Your task to perform on an android device: show emergency info Image 0: 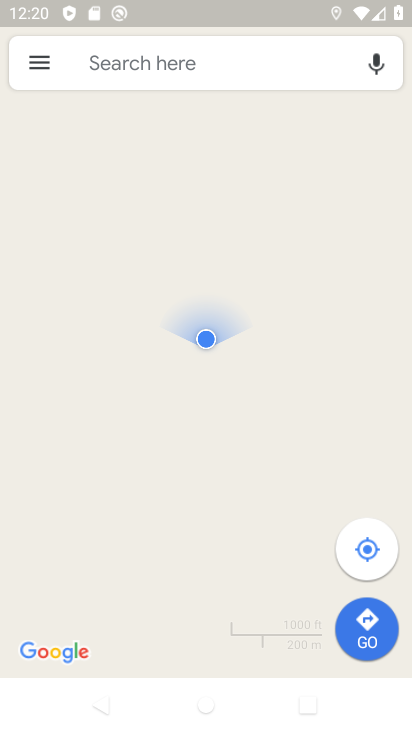
Step 0: press home button
Your task to perform on an android device: show emergency info Image 1: 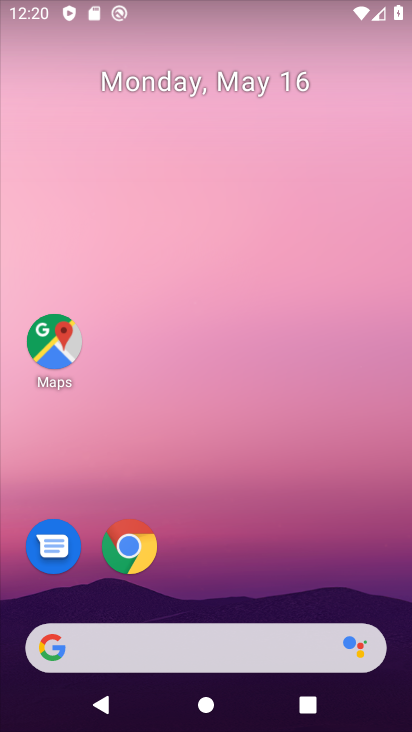
Step 1: drag from (278, 549) to (326, 82)
Your task to perform on an android device: show emergency info Image 2: 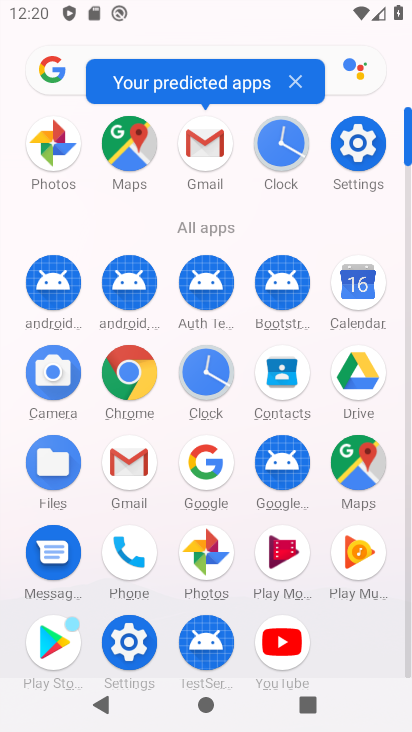
Step 2: click (370, 136)
Your task to perform on an android device: show emergency info Image 3: 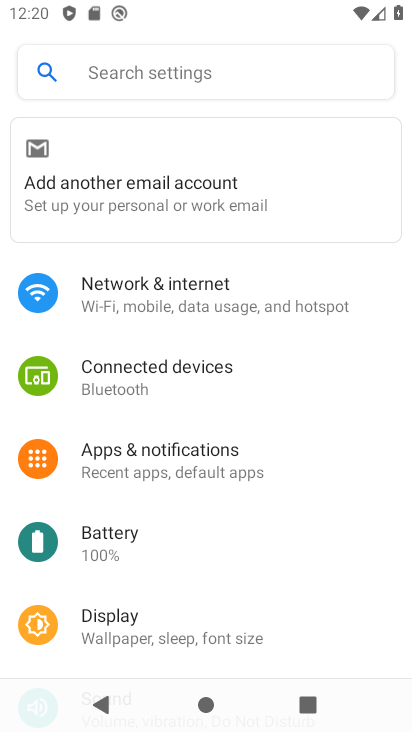
Step 3: drag from (272, 513) to (303, 0)
Your task to perform on an android device: show emergency info Image 4: 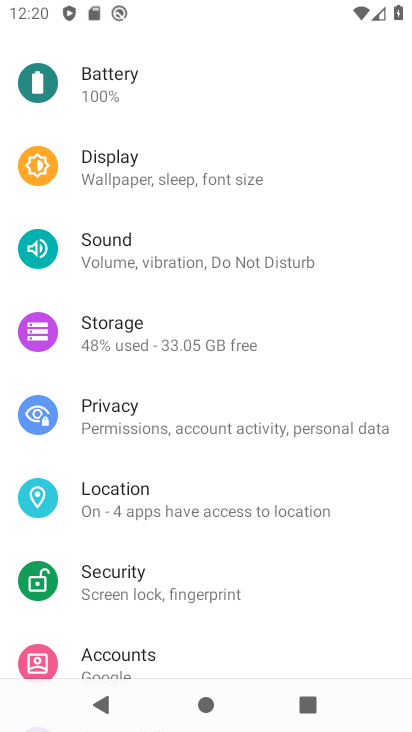
Step 4: drag from (180, 588) to (287, 110)
Your task to perform on an android device: show emergency info Image 5: 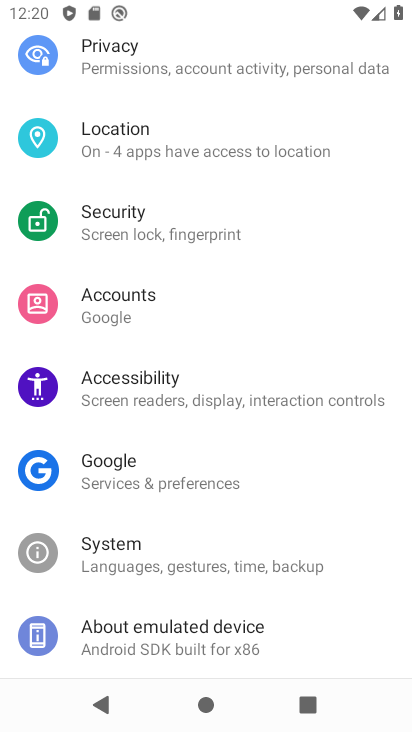
Step 5: drag from (200, 483) to (273, 184)
Your task to perform on an android device: show emergency info Image 6: 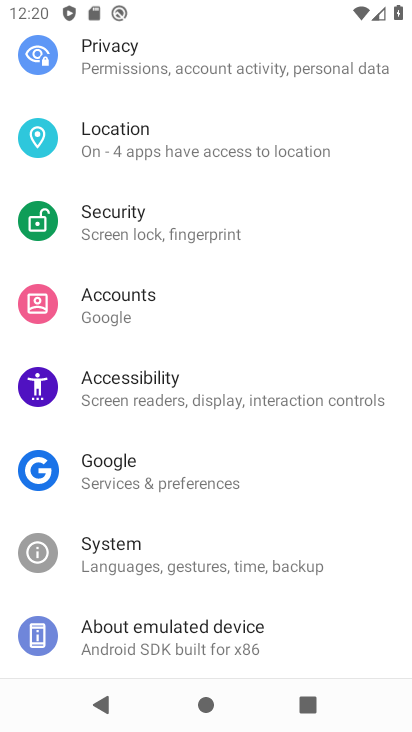
Step 6: click (184, 635)
Your task to perform on an android device: show emergency info Image 7: 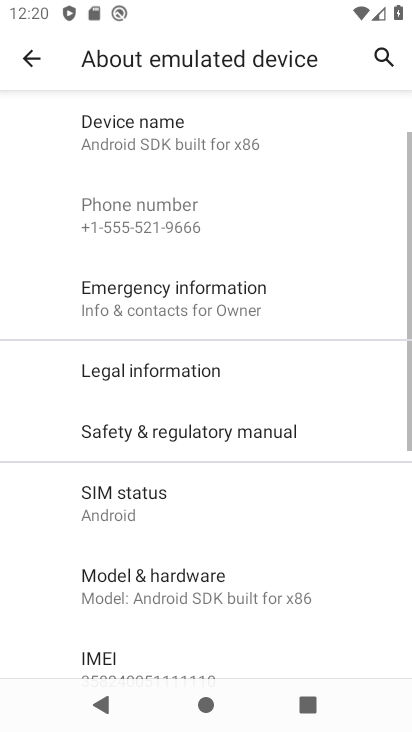
Step 7: drag from (186, 627) to (270, 234)
Your task to perform on an android device: show emergency info Image 8: 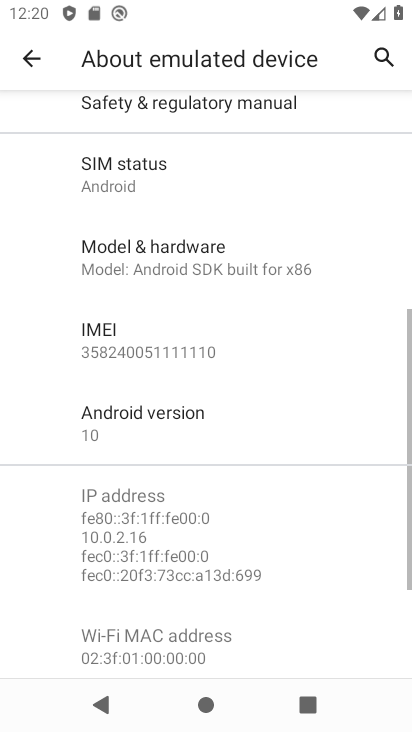
Step 8: drag from (247, 142) to (166, 471)
Your task to perform on an android device: show emergency info Image 9: 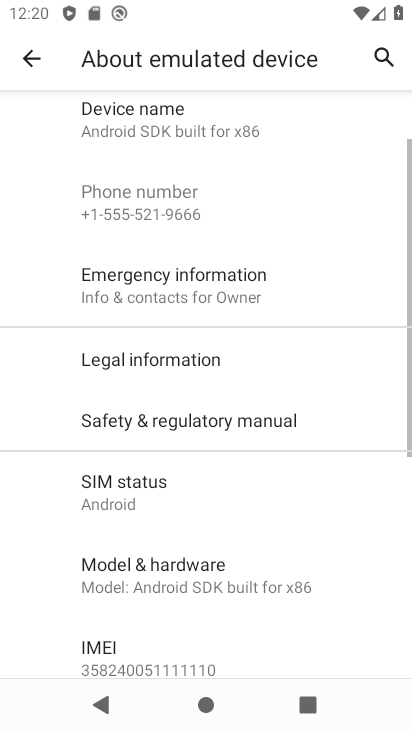
Step 9: click (203, 298)
Your task to perform on an android device: show emergency info Image 10: 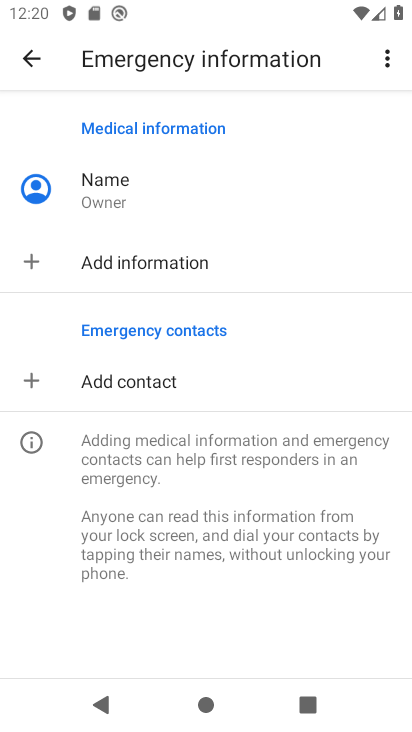
Step 10: task complete